Your task to perform on an android device: What's the weather? Image 0: 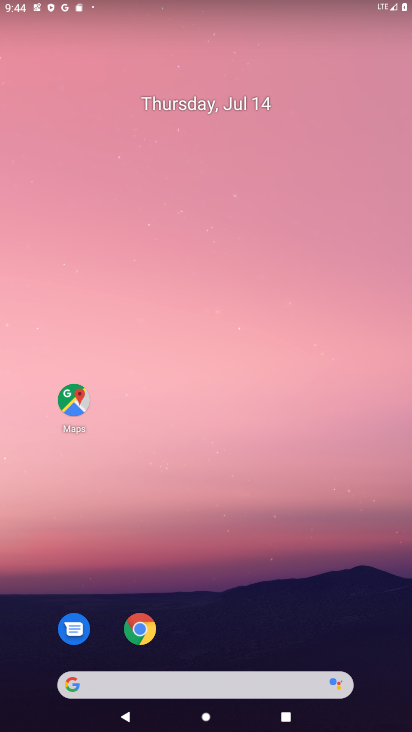
Step 0: click (218, 682)
Your task to perform on an android device: What's the weather? Image 1: 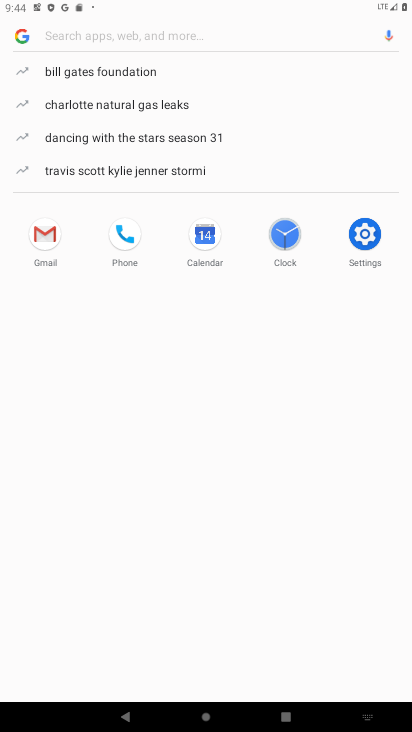
Step 1: click (244, 40)
Your task to perform on an android device: What's the weather? Image 2: 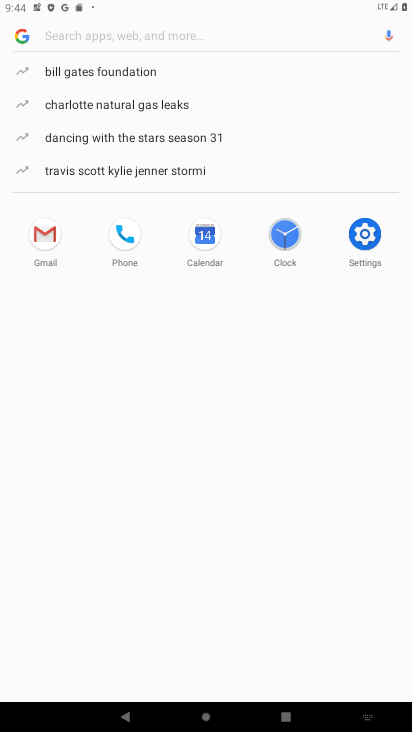
Step 2: type "weather"
Your task to perform on an android device: What's the weather? Image 3: 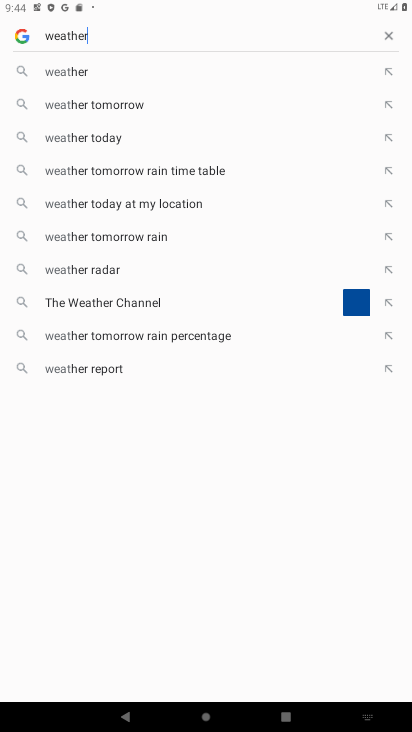
Step 3: type ""
Your task to perform on an android device: What's the weather? Image 4: 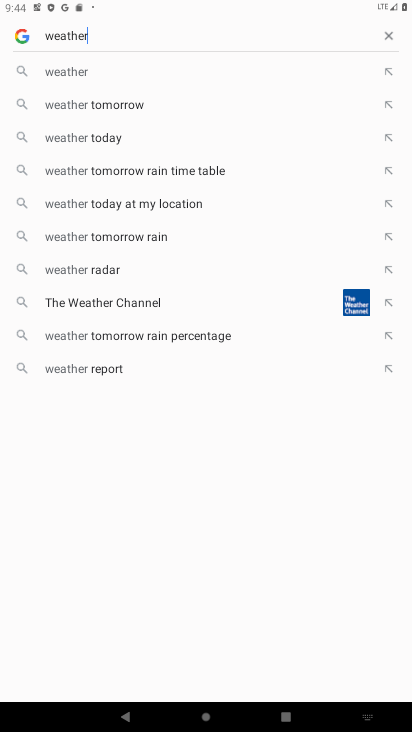
Step 4: click (80, 67)
Your task to perform on an android device: What's the weather? Image 5: 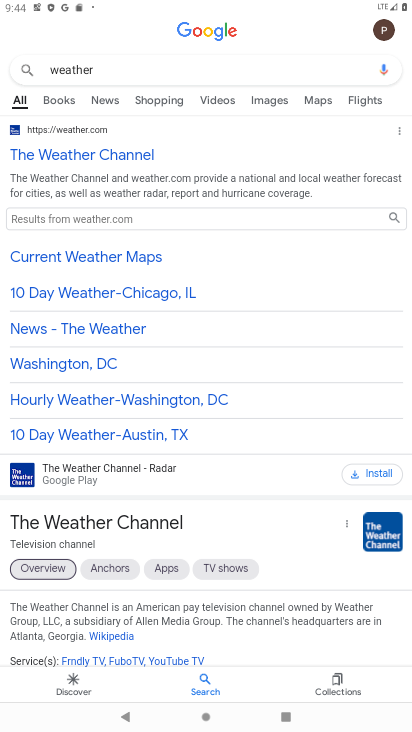
Step 5: click (79, 160)
Your task to perform on an android device: What's the weather? Image 6: 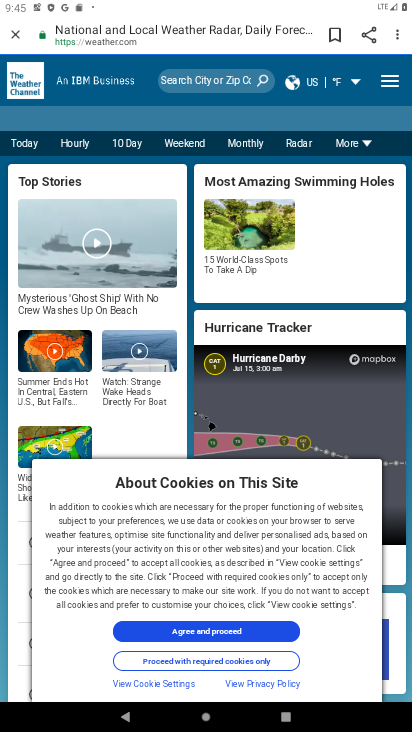
Step 6: task complete